Your task to perform on an android device: turn off picture-in-picture Image 0: 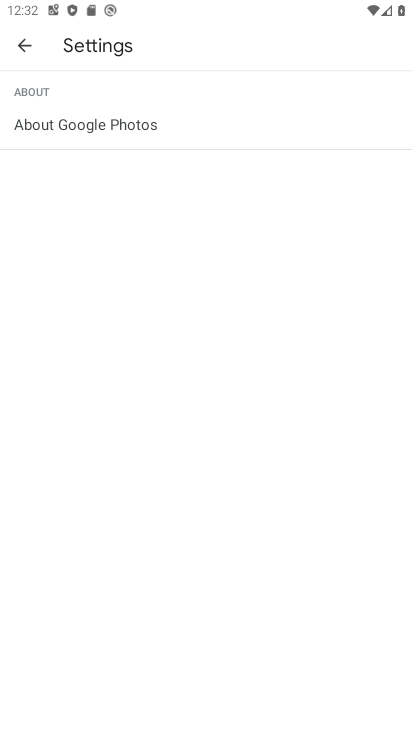
Step 0: press home button
Your task to perform on an android device: turn off picture-in-picture Image 1: 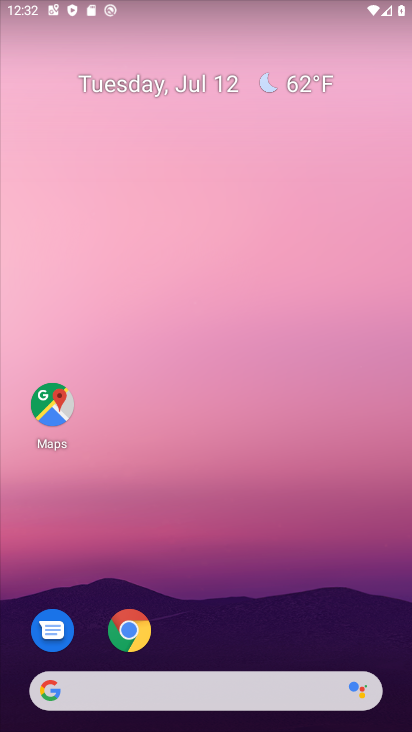
Step 1: drag from (222, 570) to (171, 179)
Your task to perform on an android device: turn off picture-in-picture Image 2: 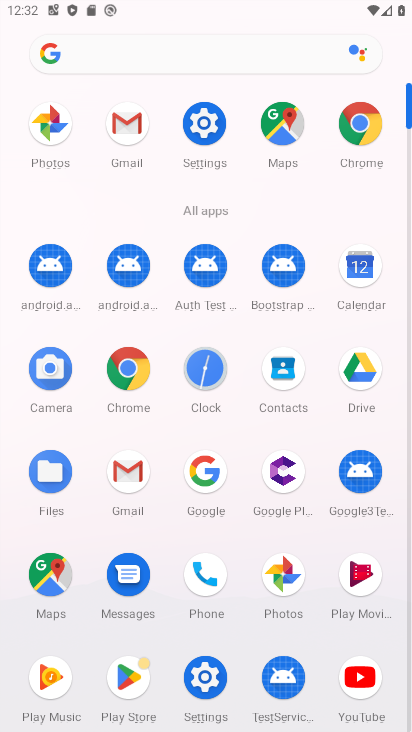
Step 2: click (204, 119)
Your task to perform on an android device: turn off picture-in-picture Image 3: 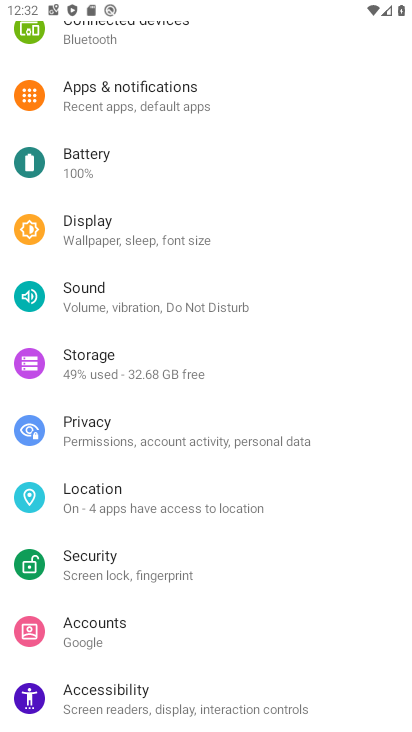
Step 3: click (113, 83)
Your task to perform on an android device: turn off picture-in-picture Image 4: 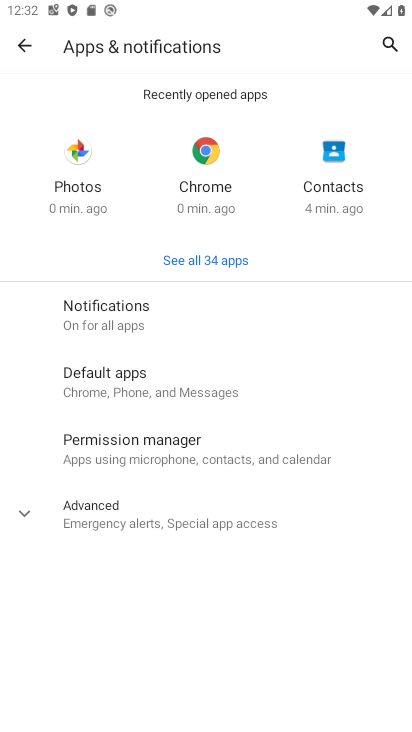
Step 4: click (26, 511)
Your task to perform on an android device: turn off picture-in-picture Image 5: 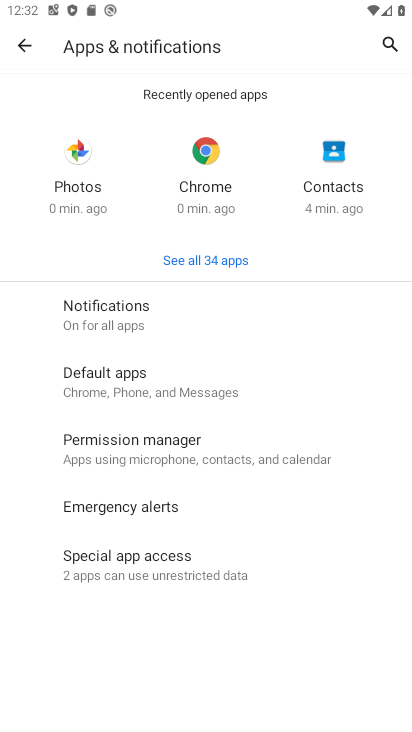
Step 5: click (114, 564)
Your task to perform on an android device: turn off picture-in-picture Image 6: 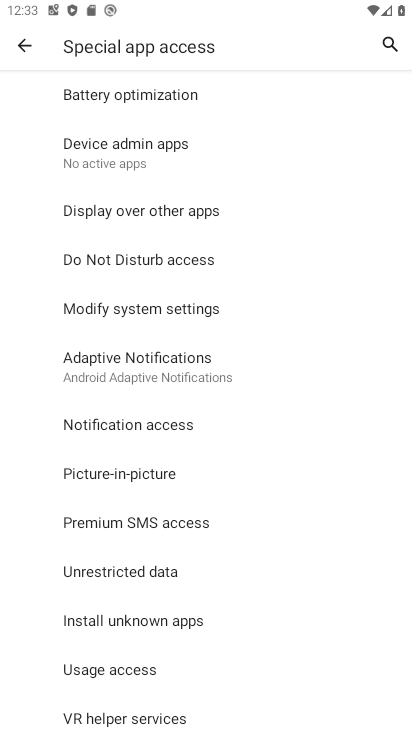
Step 6: click (140, 470)
Your task to perform on an android device: turn off picture-in-picture Image 7: 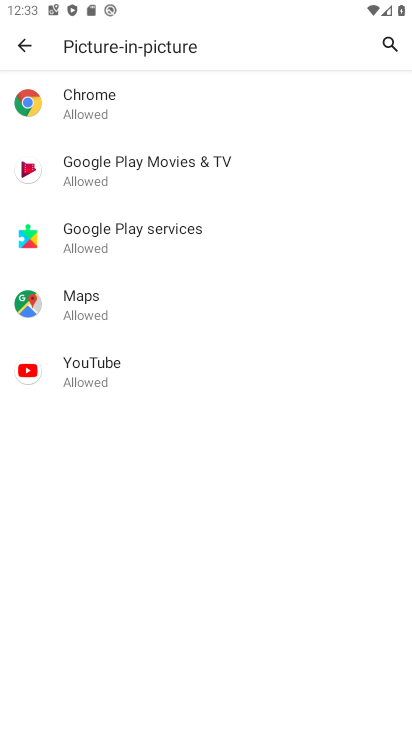
Step 7: click (96, 96)
Your task to perform on an android device: turn off picture-in-picture Image 8: 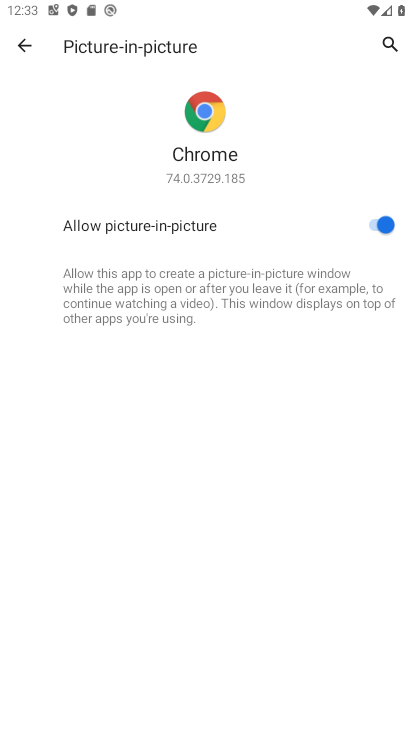
Step 8: click (376, 234)
Your task to perform on an android device: turn off picture-in-picture Image 9: 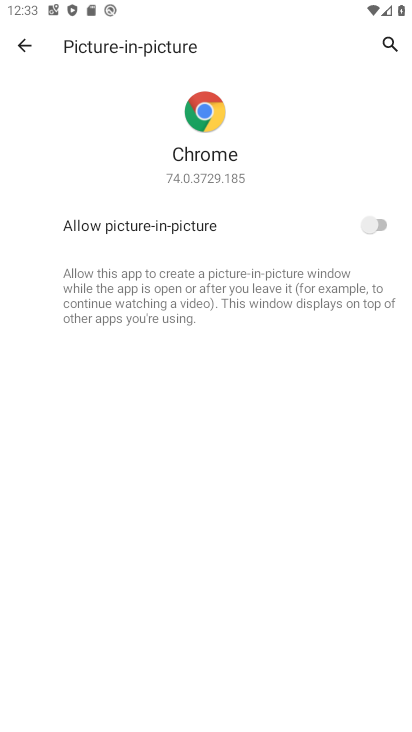
Step 9: click (27, 43)
Your task to perform on an android device: turn off picture-in-picture Image 10: 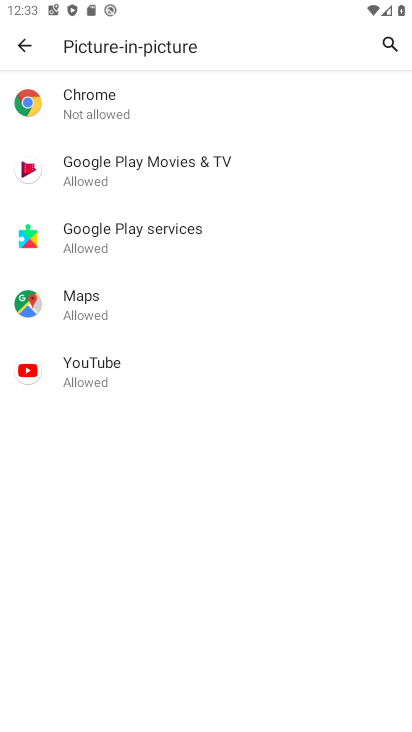
Step 10: click (118, 172)
Your task to perform on an android device: turn off picture-in-picture Image 11: 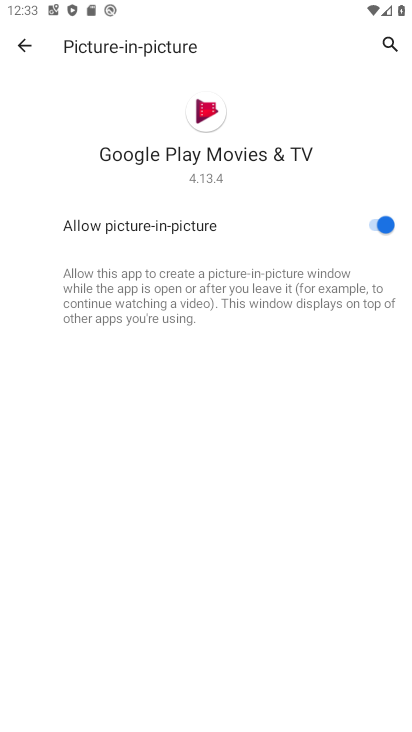
Step 11: click (386, 217)
Your task to perform on an android device: turn off picture-in-picture Image 12: 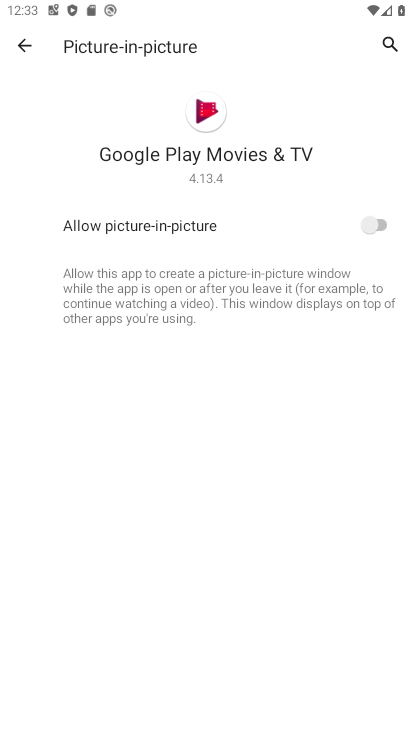
Step 12: click (18, 47)
Your task to perform on an android device: turn off picture-in-picture Image 13: 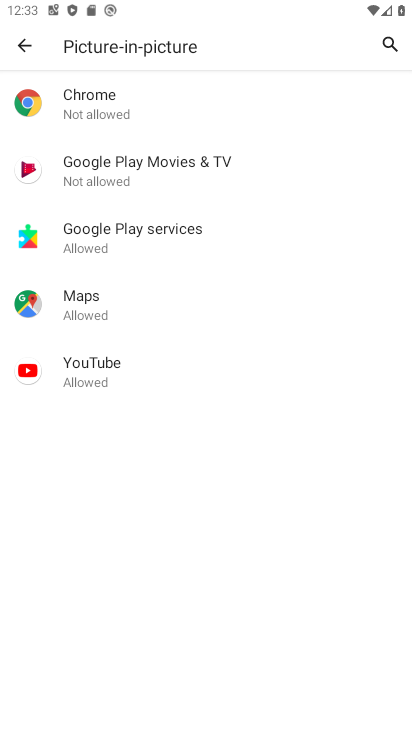
Step 13: click (96, 239)
Your task to perform on an android device: turn off picture-in-picture Image 14: 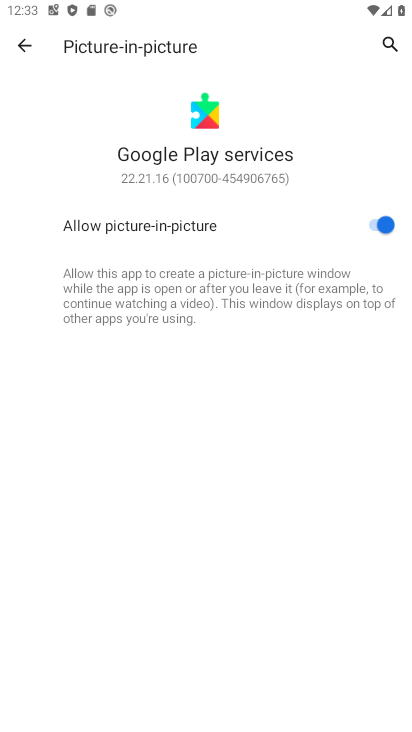
Step 14: click (376, 218)
Your task to perform on an android device: turn off picture-in-picture Image 15: 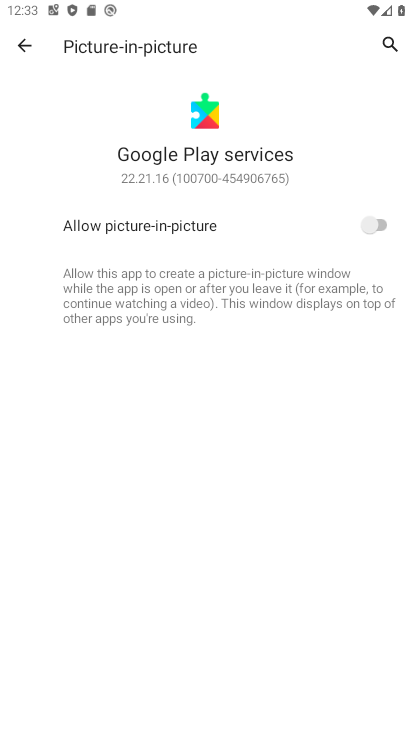
Step 15: click (19, 42)
Your task to perform on an android device: turn off picture-in-picture Image 16: 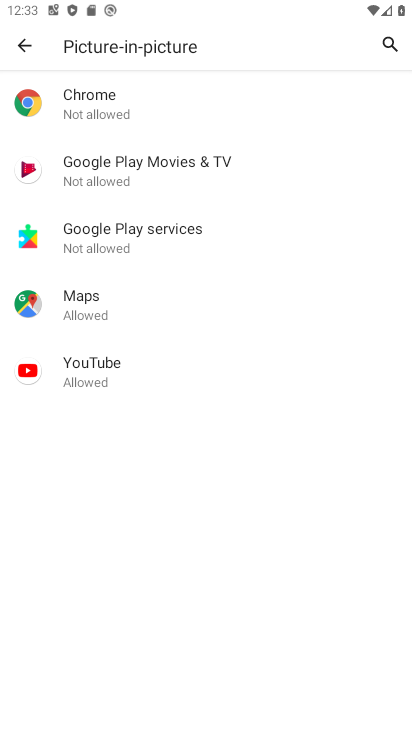
Step 16: click (75, 304)
Your task to perform on an android device: turn off picture-in-picture Image 17: 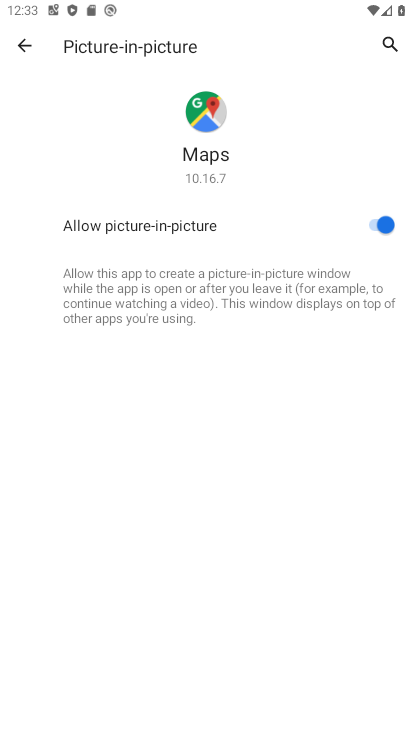
Step 17: click (393, 212)
Your task to perform on an android device: turn off picture-in-picture Image 18: 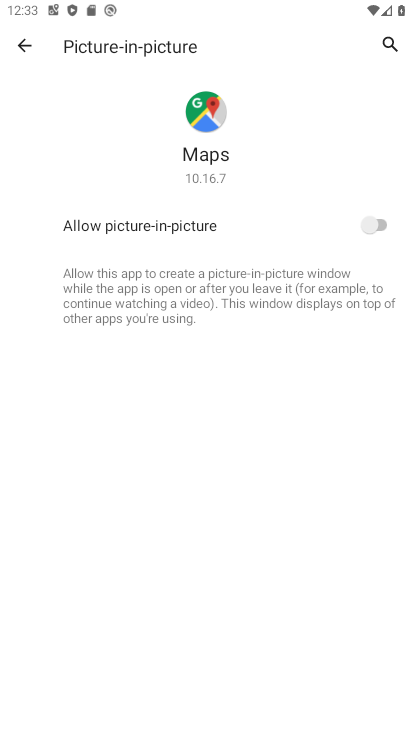
Step 18: click (28, 45)
Your task to perform on an android device: turn off picture-in-picture Image 19: 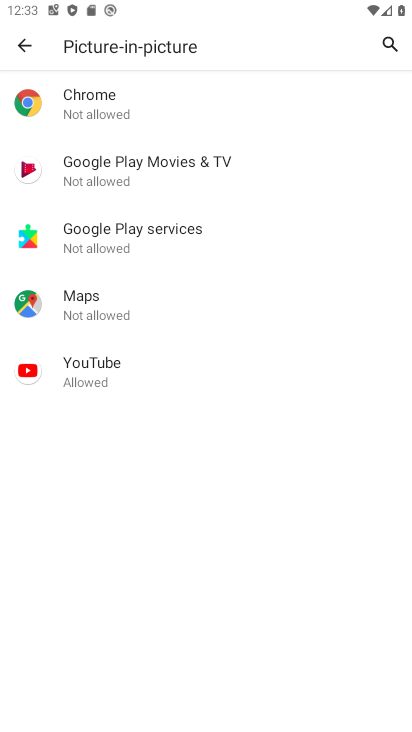
Step 19: click (90, 381)
Your task to perform on an android device: turn off picture-in-picture Image 20: 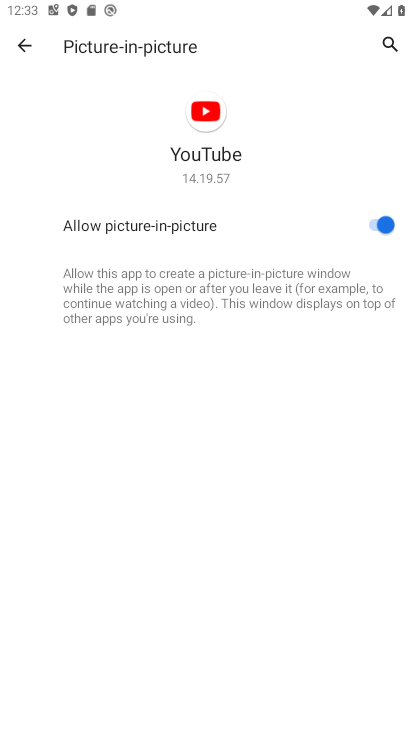
Step 20: click (383, 226)
Your task to perform on an android device: turn off picture-in-picture Image 21: 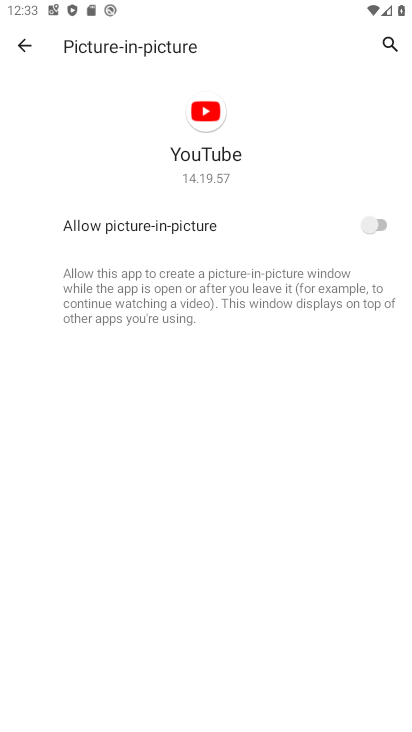
Step 21: click (24, 46)
Your task to perform on an android device: turn off picture-in-picture Image 22: 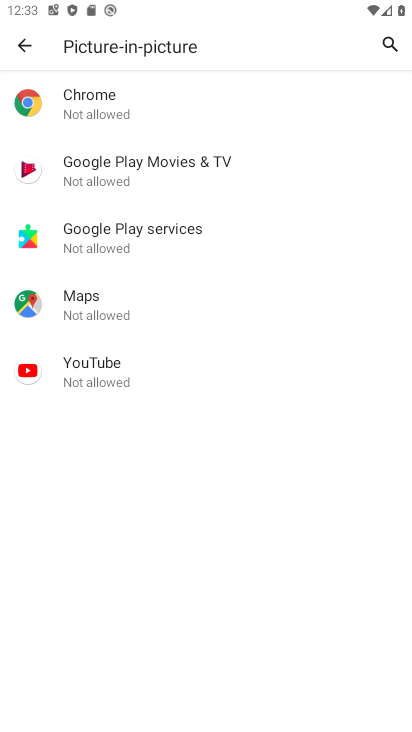
Step 22: task complete